Your task to perform on an android device: empty trash in the gmail app Image 0: 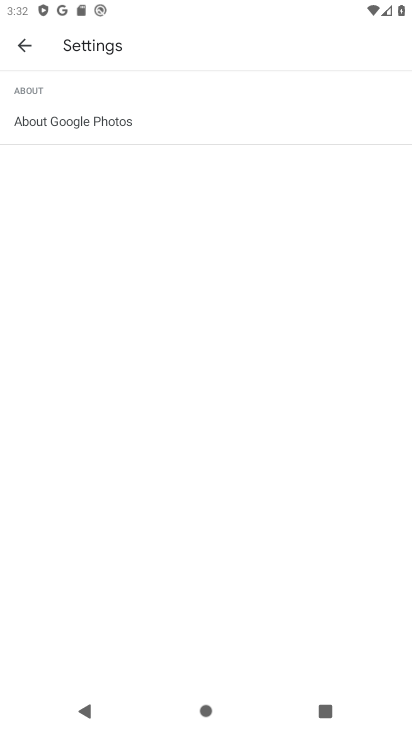
Step 0: press home button
Your task to perform on an android device: empty trash in the gmail app Image 1: 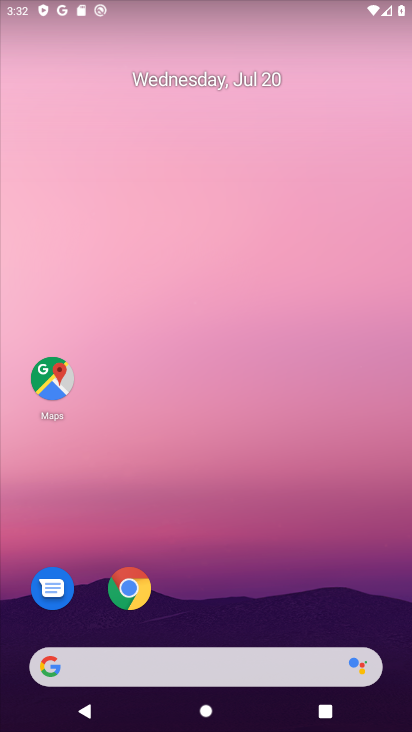
Step 1: drag from (204, 599) to (154, 225)
Your task to perform on an android device: empty trash in the gmail app Image 2: 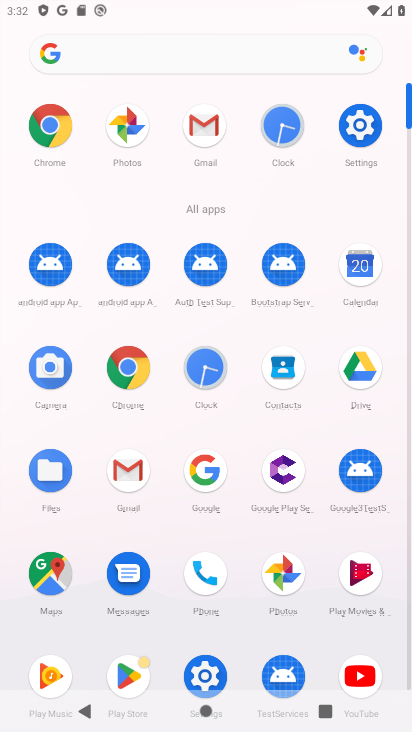
Step 2: click (197, 111)
Your task to perform on an android device: empty trash in the gmail app Image 3: 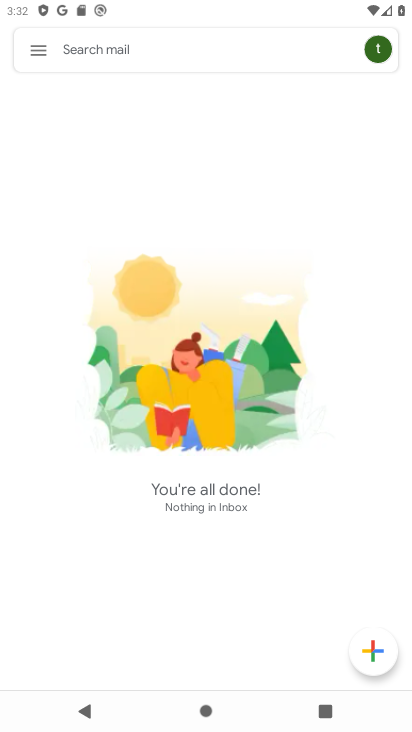
Step 3: click (47, 46)
Your task to perform on an android device: empty trash in the gmail app Image 4: 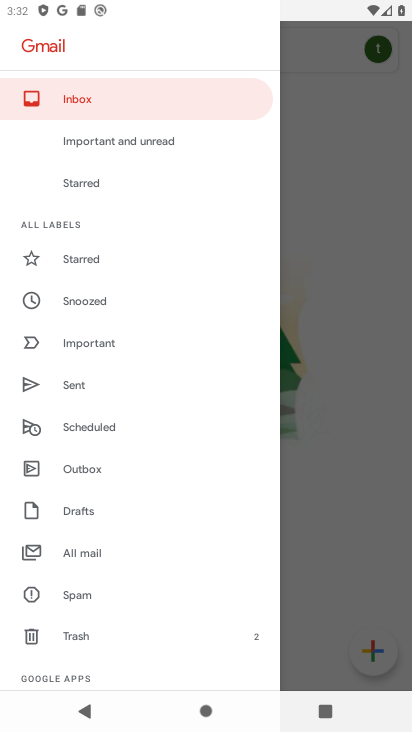
Step 4: click (73, 623)
Your task to perform on an android device: empty trash in the gmail app Image 5: 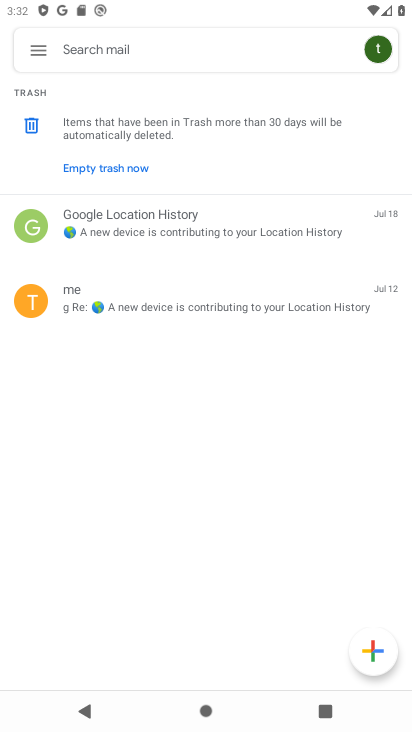
Step 5: click (109, 163)
Your task to perform on an android device: empty trash in the gmail app Image 6: 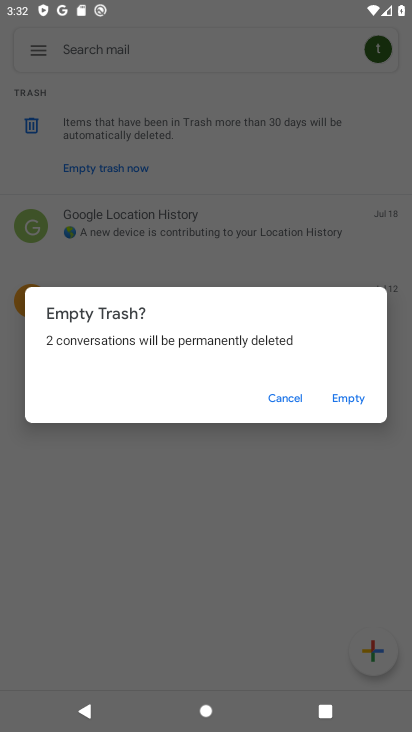
Step 6: click (354, 405)
Your task to perform on an android device: empty trash in the gmail app Image 7: 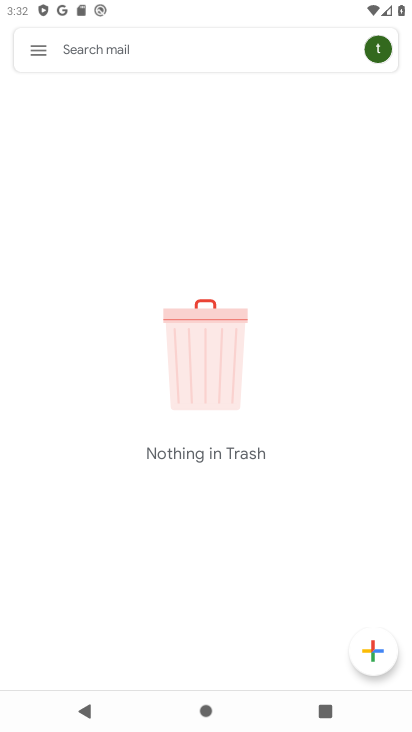
Step 7: task complete